Your task to perform on an android device: turn off javascript in the chrome app Image 0: 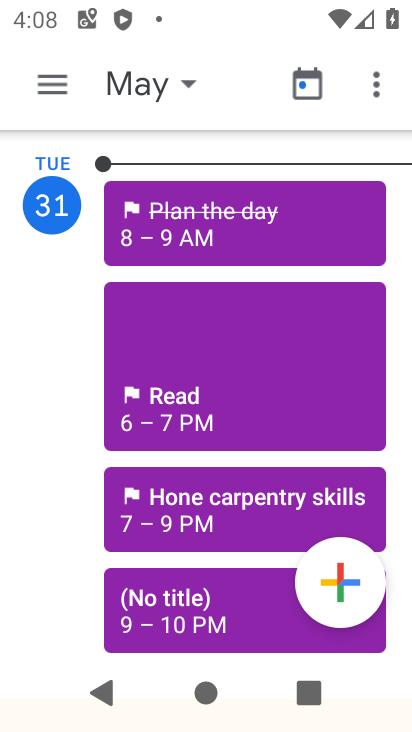
Step 0: click (181, 609)
Your task to perform on an android device: turn off javascript in the chrome app Image 1: 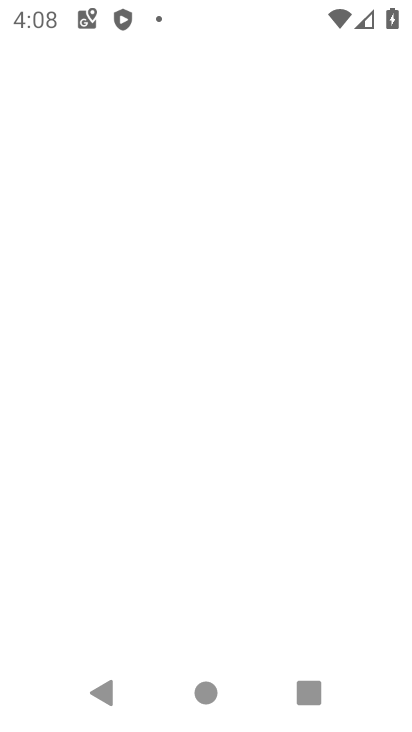
Step 1: press home button
Your task to perform on an android device: turn off javascript in the chrome app Image 2: 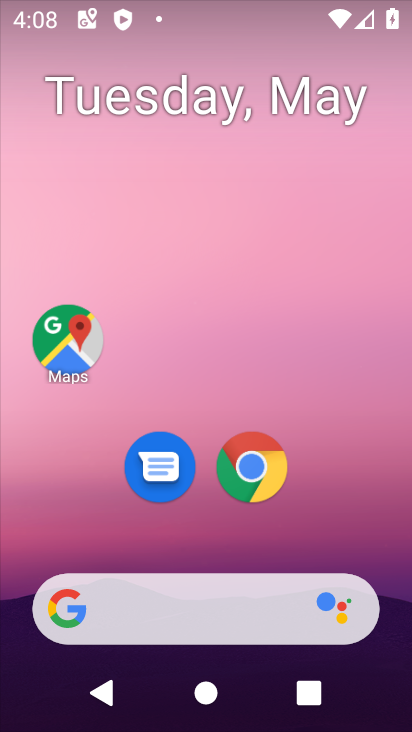
Step 2: click (250, 484)
Your task to perform on an android device: turn off javascript in the chrome app Image 3: 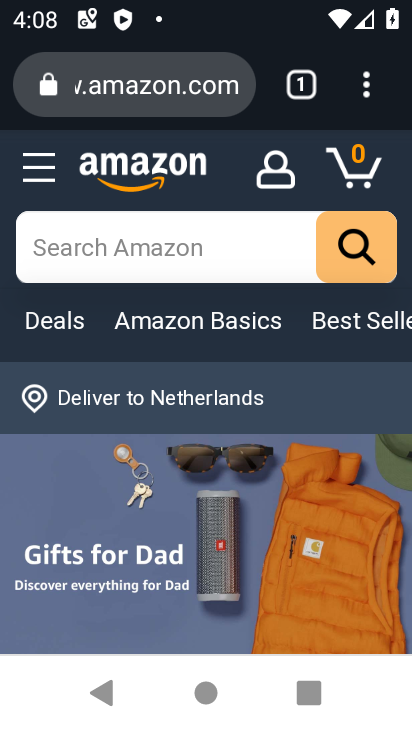
Step 3: click (367, 75)
Your task to perform on an android device: turn off javascript in the chrome app Image 4: 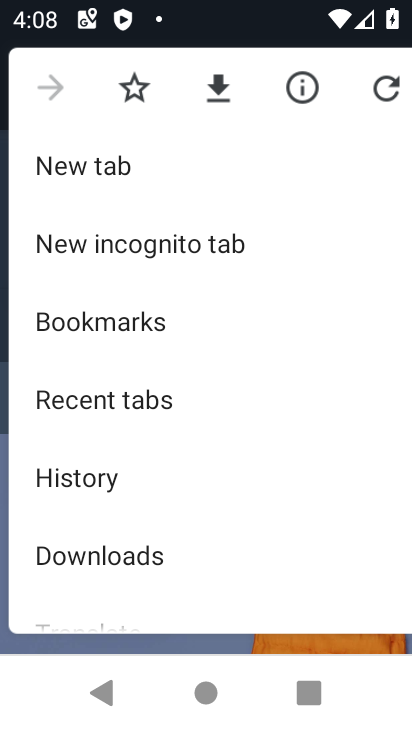
Step 4: drag from (105, 570) to (137, 205)
Your task to perform on an android device: turn off javascript in the chrome app Image 5: 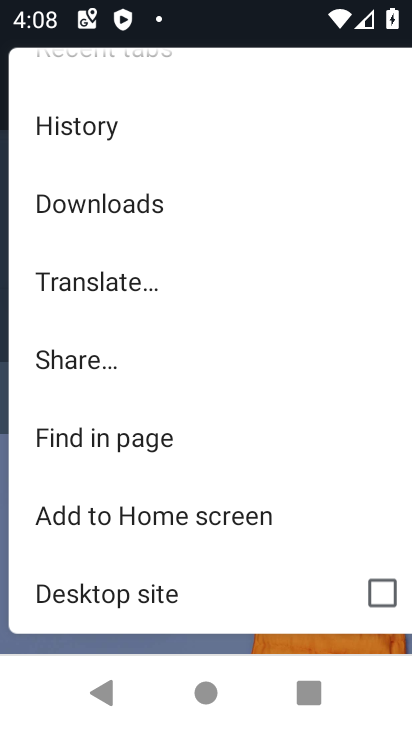
Step 5: drag from (134, 550) to (196, 195)
Your task to perform on an android device: turn off javascript in the chrome app Image 6: 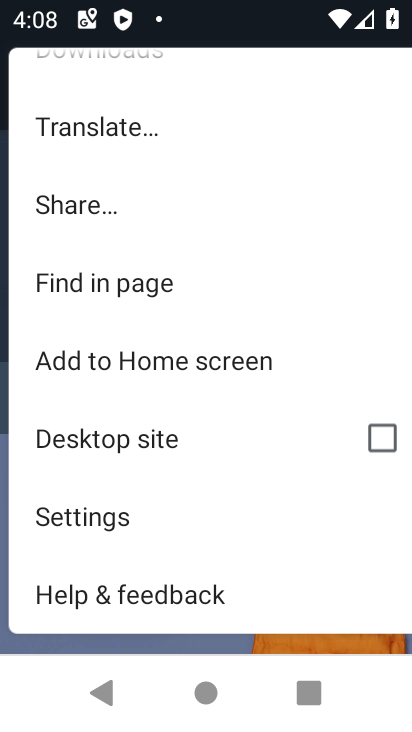
Step 6: click (112, 517)
Your task to perform on an android device: turn off javascript in the chrome app Image 7: 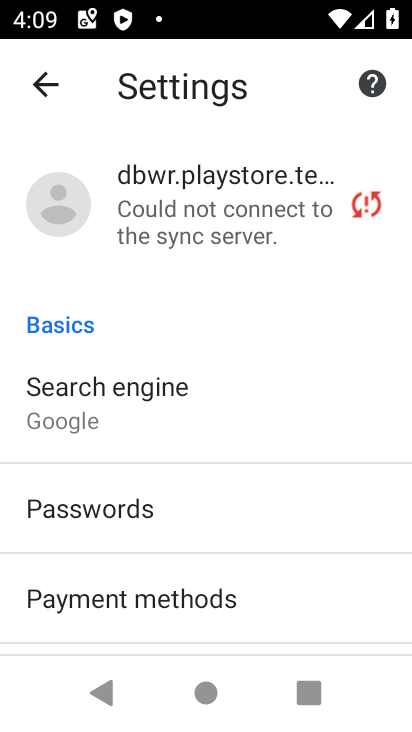
Step 7: drag from (265, 606) to (342, 246)
Your task to perform on an android device: turn off javascript in the chrome app Image 8: 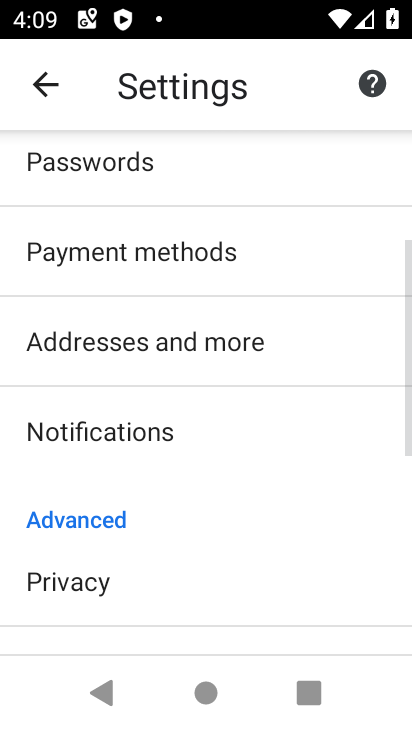
Step 8: drag from (234, 557) to (185, 208)
Your task to perform on an android device: turn off javascript in the chrome app Image 9: 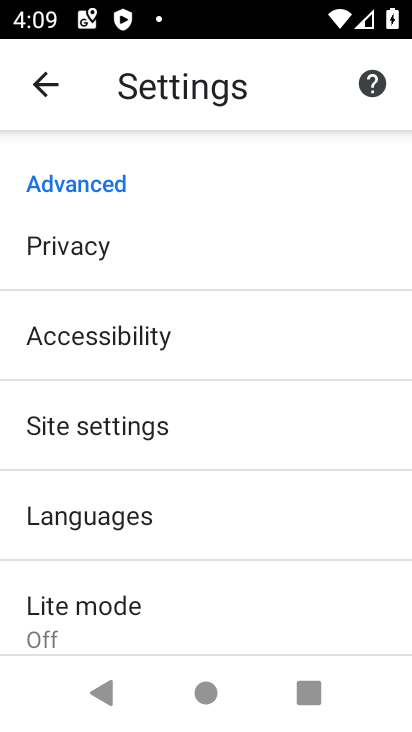
Step 9: click (108, 413)
Your task to perform on an android device: turn off javascript in the chrome app Image 10: 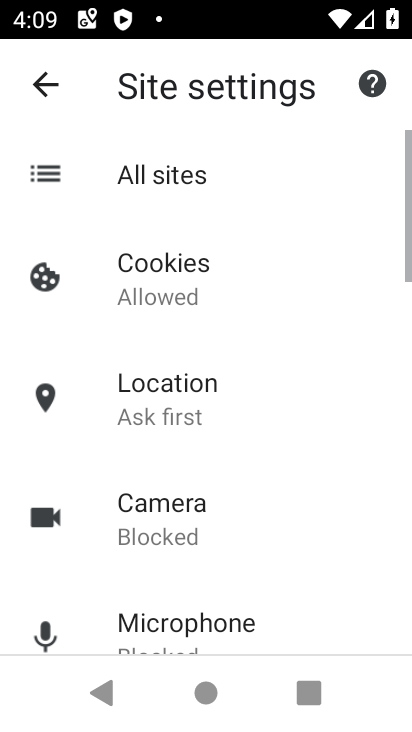
Step 10: drag from (197, 613) to (156, 190)
Your task to perform on an android device: turn off javascript in the chrome app Image 11: 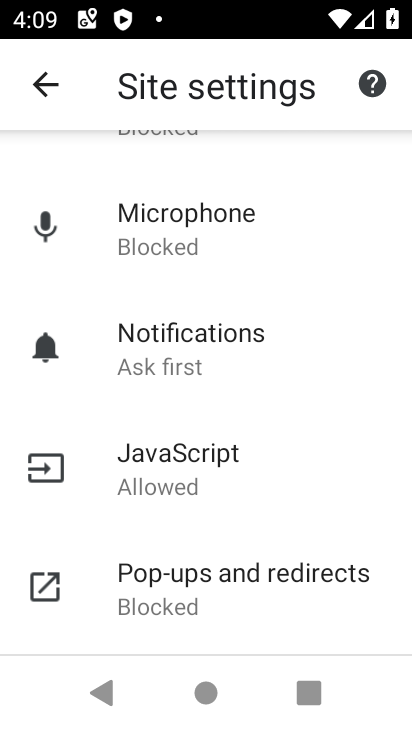
Step 11: click (177, 472)
Your task to perform on an android device: turn off javascript in the chrome app Image 12: 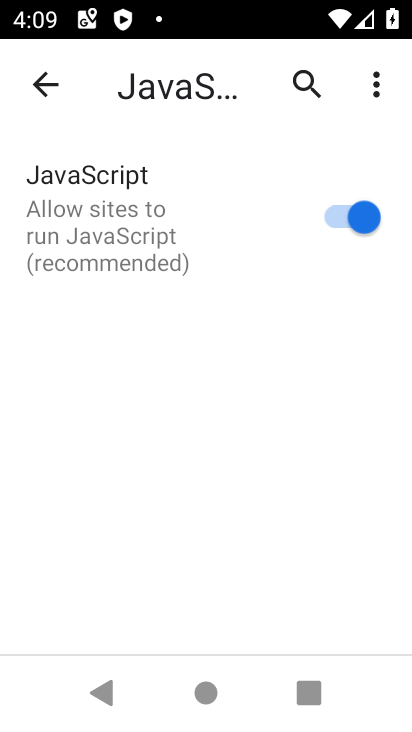
Step 12: click (347, 226)
Your task to perform on an android device: turn off javascript in the chrome app Image 13: 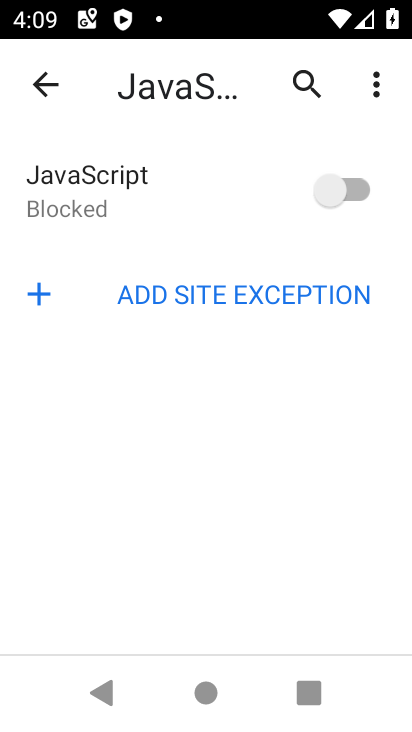
Step 13: task complete